Your task to perform on an android device: open wifi settings Image 0: 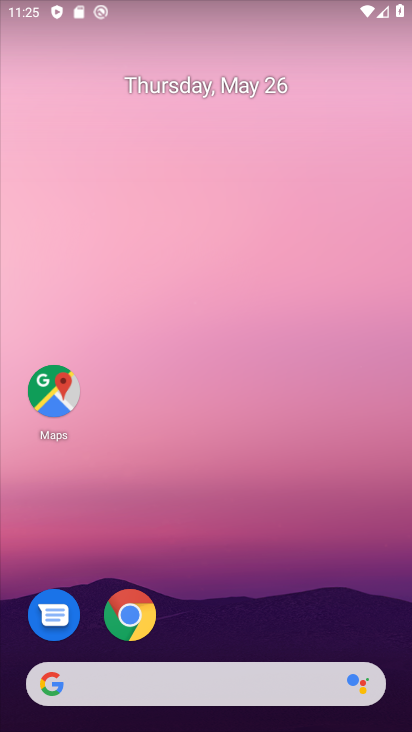
Step 0: press home button
Your task to perform on an android device: open wifi settings Image 1: 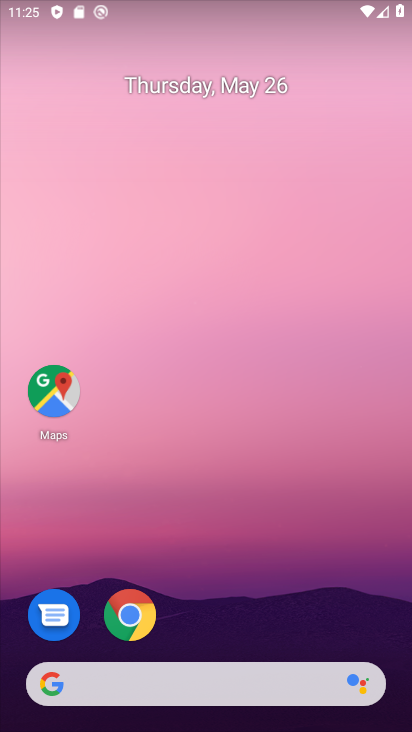
Step 1: drag from (215, 5) to (200, 383)
Your task to perform on an android device: open wifi settings Image 2: 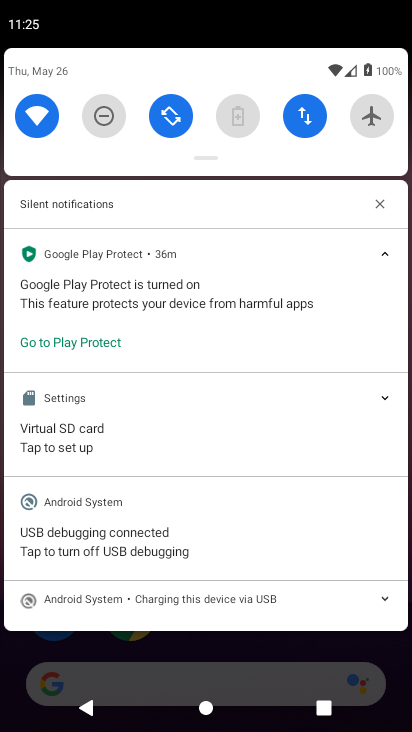
Step 2: click (46, 120)
Your task to perform on an android device: open wifi settings Image 3: 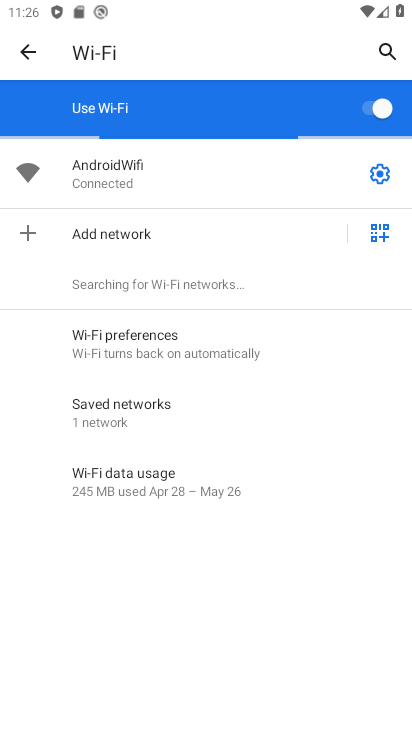
Step 3: task complete